Your task to perform on an android device: Open notification settings Image 0: 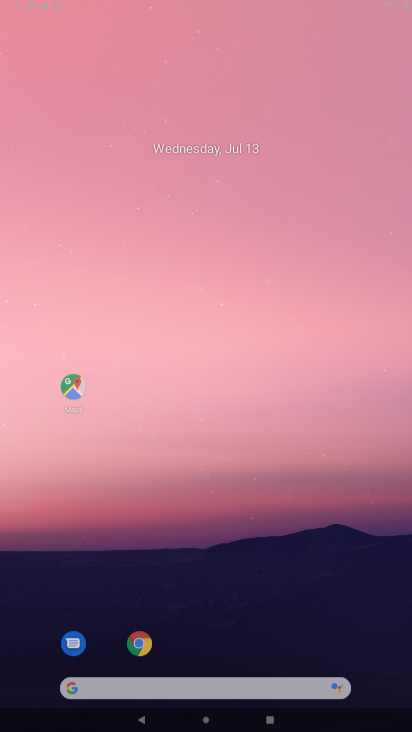
Step 0: press home button
Your task to perform on an android device: Open notification settings Image 1: 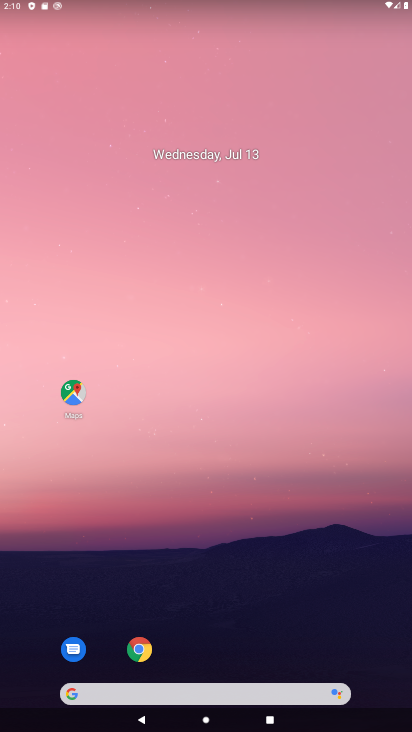
Step 1: drag from (223, 656) to (270, 173)
Your task to perform on an android device: Open notification settings Image 2: 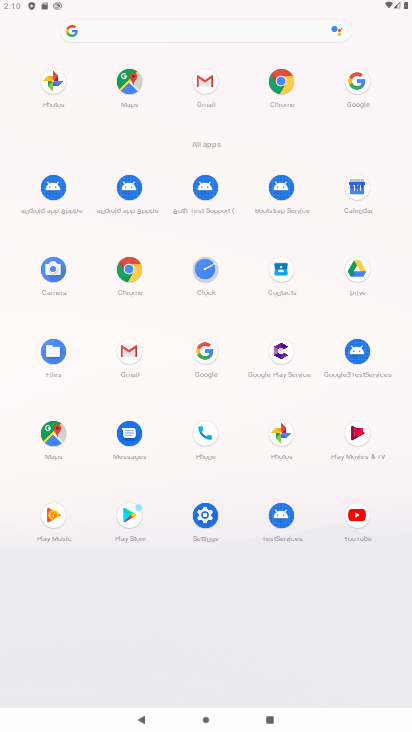
Step 2: click (202, 521)
Your task to perform on an android device: Open notification settings Image 3: 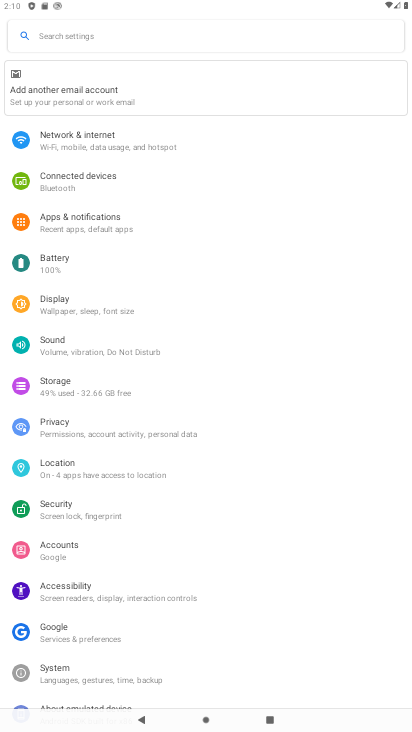
Step 3: click (92, 222)
Your task to perform on an android device: Open notification settings Image 4: 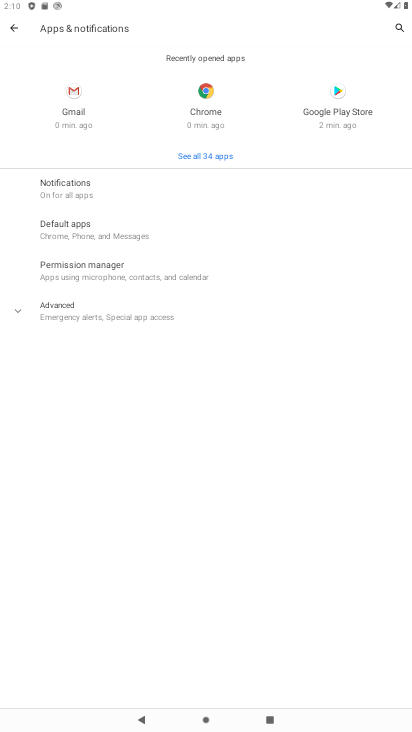
Step 4: click (220, 206)
Your task to perform on an android device: Open notification settings Image 5: 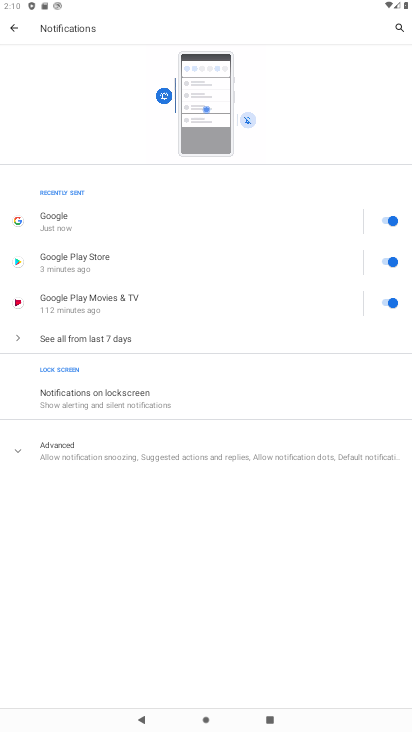
Step 5: task complete